Your task to perform on an android device: Open Youtube and go to the subscriptions tab Image 0: 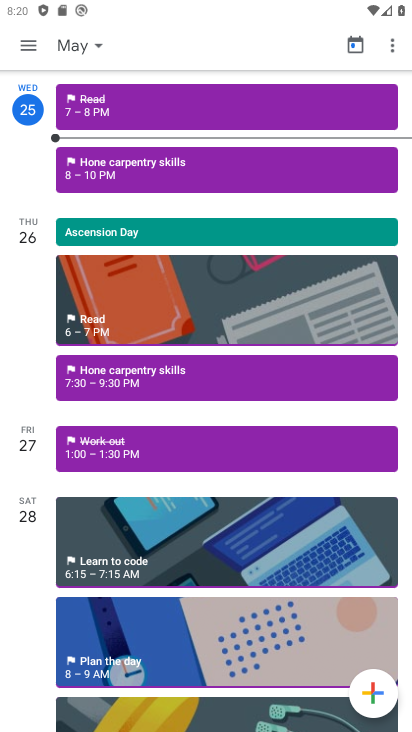
Step 0: press home button
Your task to perform on an android device: Open Youtube and go to the subscriptions tab Image 1: 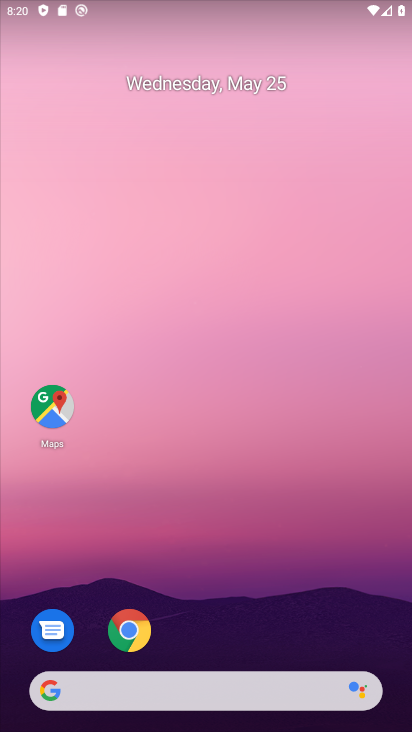
Step 1: drag from (154, 651) to (361, 80)
Your task to perform on an android device: Open Youtube and go to the subscriptions tab Image 2: 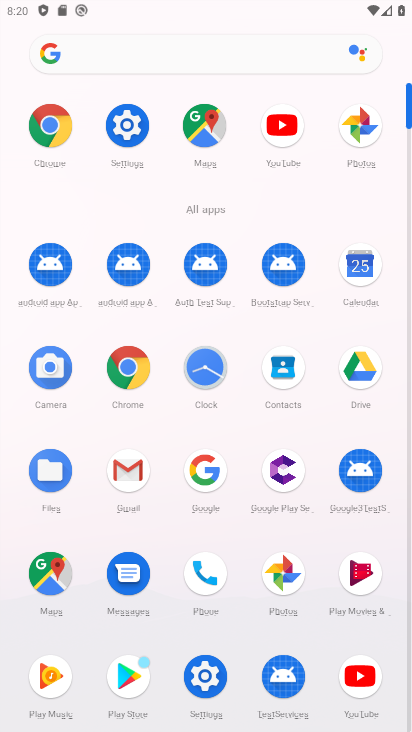
Step 2: click (348, 663)
Your task to perform on an android device: Open Youtube and go to the subscriptions tab Image 3: 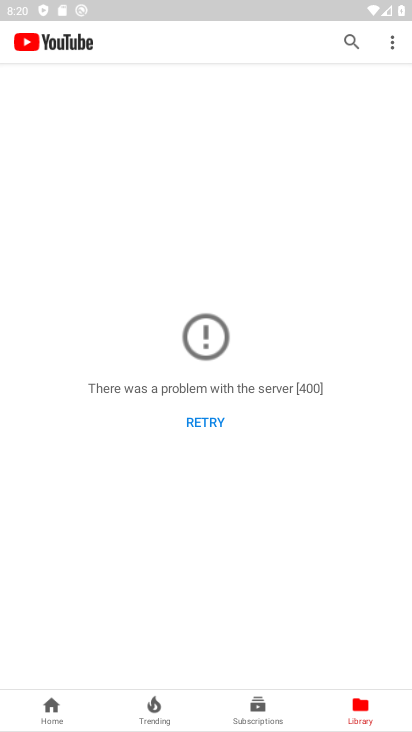
Step 3: click (256, 704)
Your task to perform on an android device: Open Youtube and go to the subscriptions tab Image 4: 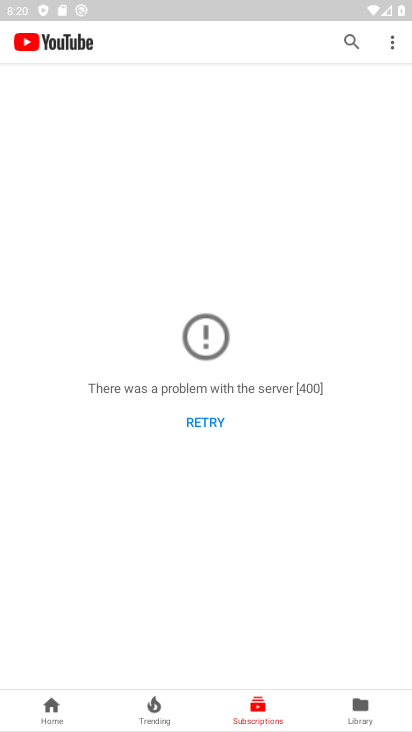
Step 4: task complete